Your task to perform on an android device: open app "Skype" (install if not already installed) Image 0: 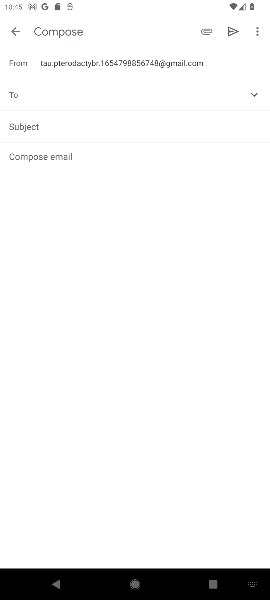
Step 0: press home button
Your task to perform on an android device: open app "Skype" (install if not already installed) Image 1: 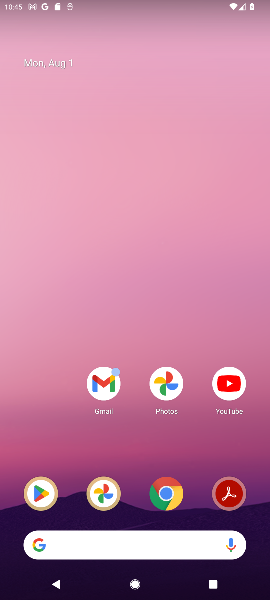
Step 1: click (59, 284)
Your task to perform on an android device: open app "Skype" (install if not already installed) Image 2: 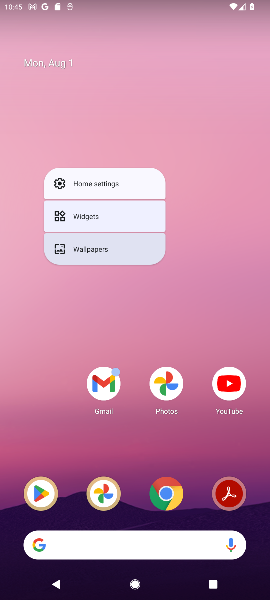
Step 2: click (30, 372)
Your task to perform on an android device: open app "Skype" (install if not already installed) Image 3: 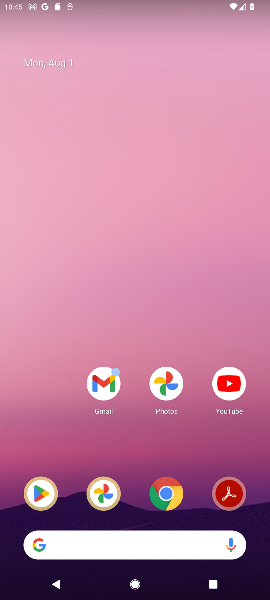
Step 3: drag from (76, 528) to (105, 79)
Your task to perform on an android device: open app "Skype" (install if not already installed) Image 4: 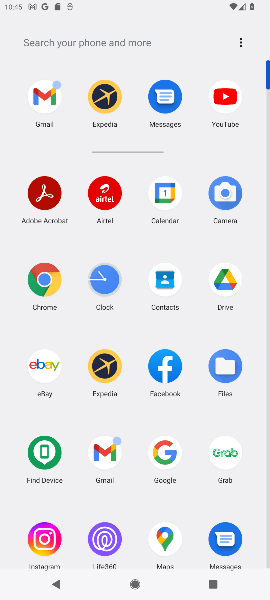
Step 4: click (229, 279)
Your task to perform on an android device: open app "Skype" (install if not already installed) Image 5: 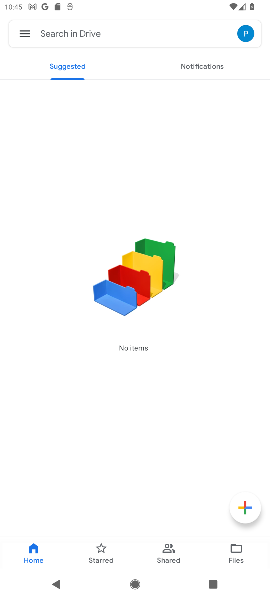
Step 5: task complete